Your task to perform on an android device: Search for Italian restaurants on Maps Image 0: 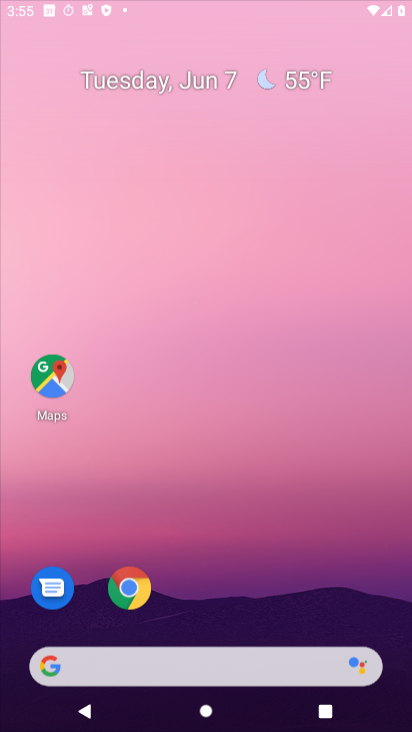
Step 0: press home button
Your task to perform on an android device: Search for Italian restaurants on Maps Image 1: 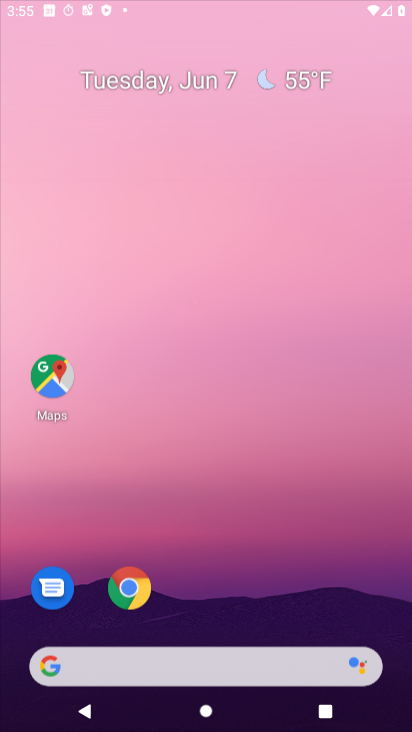
Step 1: click (135, 595)
Your task to perform on an android device: Search for Italian restaurants on Maps Image 2: 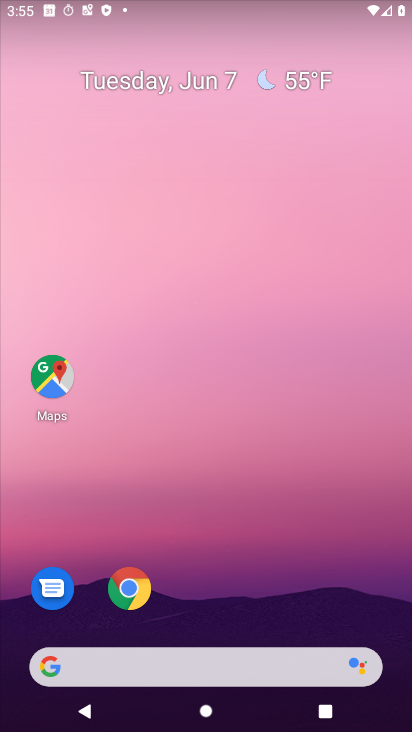
Step 2: click (135, 595)
Your task to perform on an android device: Search for Italian restaurants on Maps Image 3: 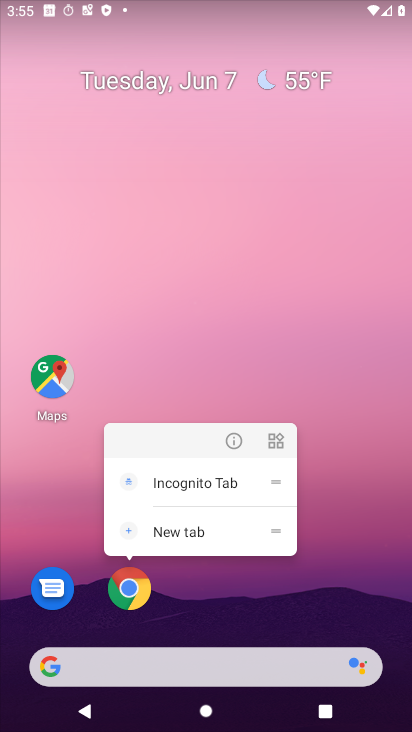
Step 3: drag from (324, 619) to (304, 23)
Your task to perform on an android device: Search for Italian restaurants on Maps Image 4: 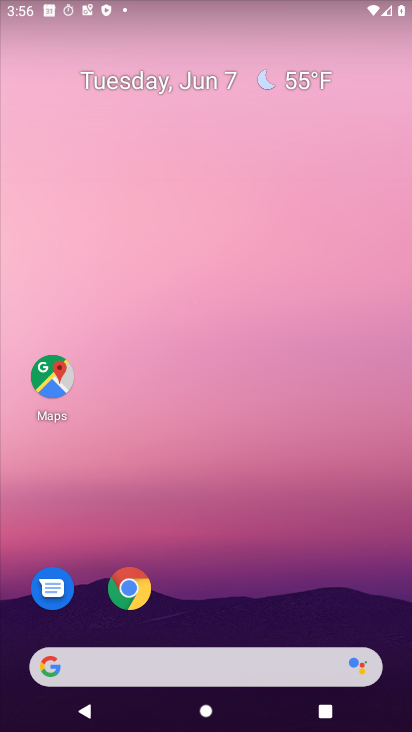
Step 4: click (58, 388)
Your task to perform on an android device: Search for Italian restaurants on Maps Image 5: 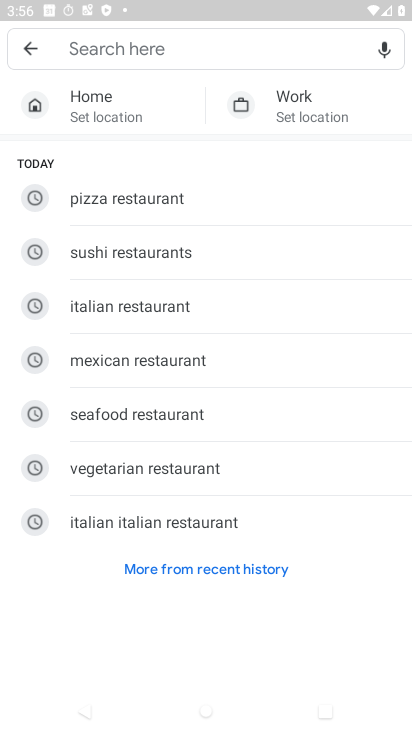
Step 5: click (127, 307)
Your task to perform on an android device: Search for Italian restaurants on Maps Image 6: 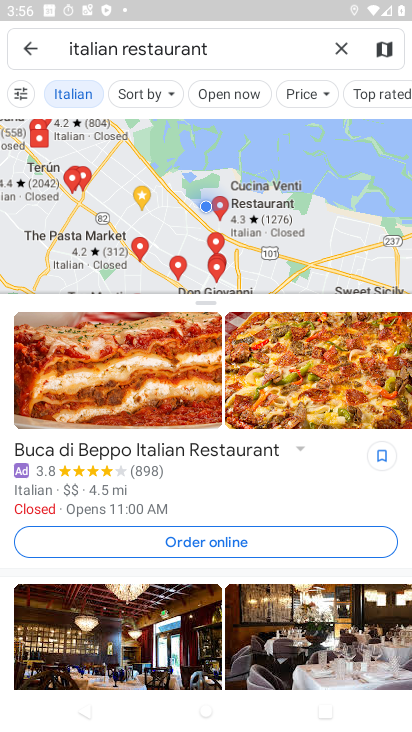
Step 6: task complete